Your task to perform on an android device: Show me the alarms in the clock app Image 0: 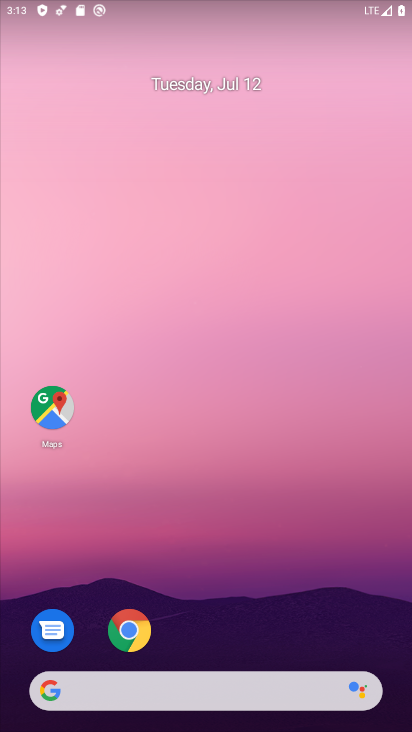
Step 0: drag from (192, 660) to (148, 78)
Your task to perform on an android device: Show me the alarms in the clock app Image 1: 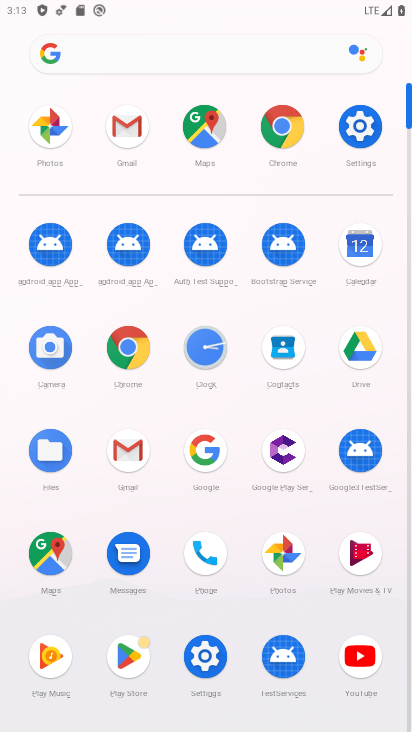
Step 1: click (211, 359)
Your task to perform on an android device: Show me the alarms in the clock app Image 2: 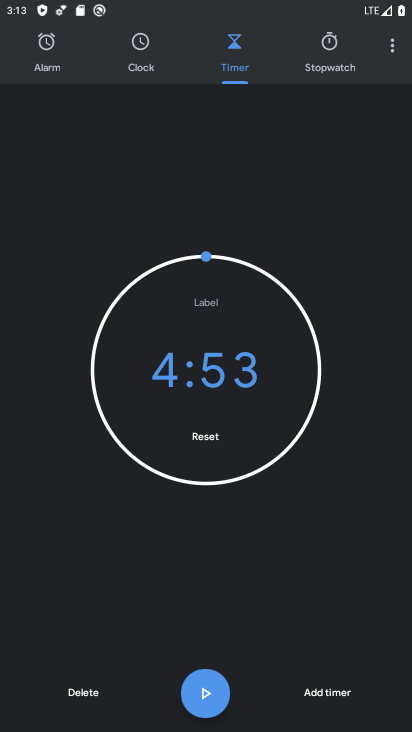
Step 2: click (54, 57)
Your task to perform on an android device: Show me the alarms in the clock app Image 3: 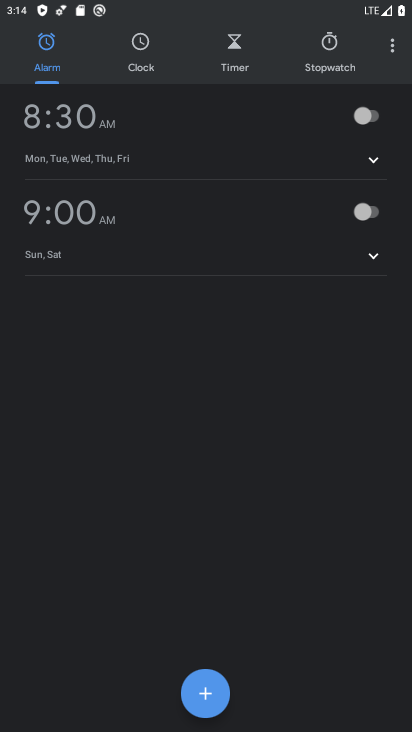
Step 3: task complete